Your task to perform on an android device: delete location history Image 0: 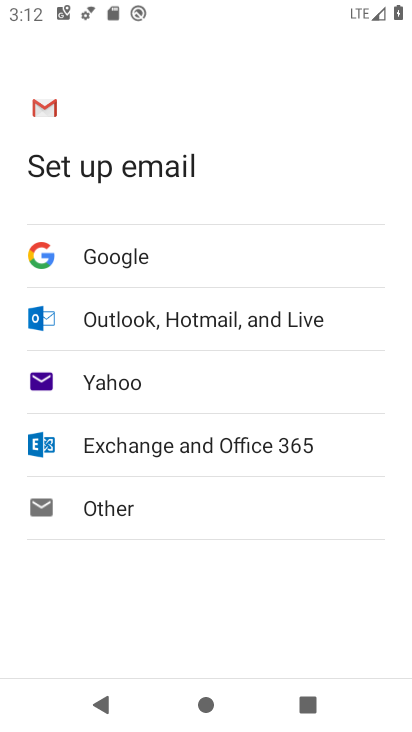
Step 0: press home button
Your task to perform on an android device: delete location history Image 1: 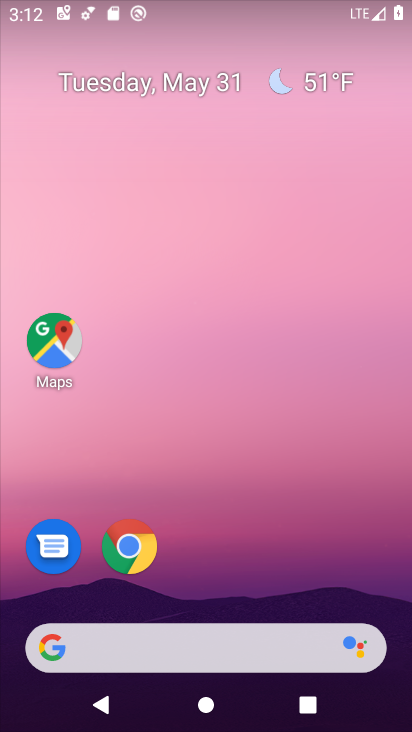
Step 1: drag from (207, 39) to (181, 8)
Your task to perform on an android device: delete location history Image 2: 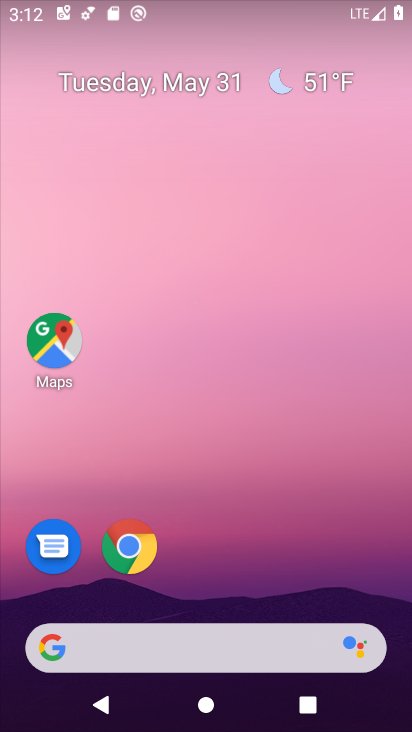
Step 2: drag from (250, 501) to (179, 17)
Your task to perform on an android device: delete location history Image 3: 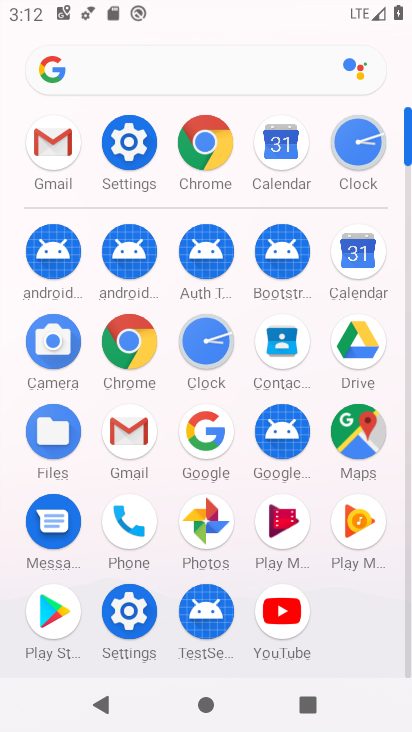
Step 3: click (116, 169)
Your task to perform on an android device: delete location history Image 4: 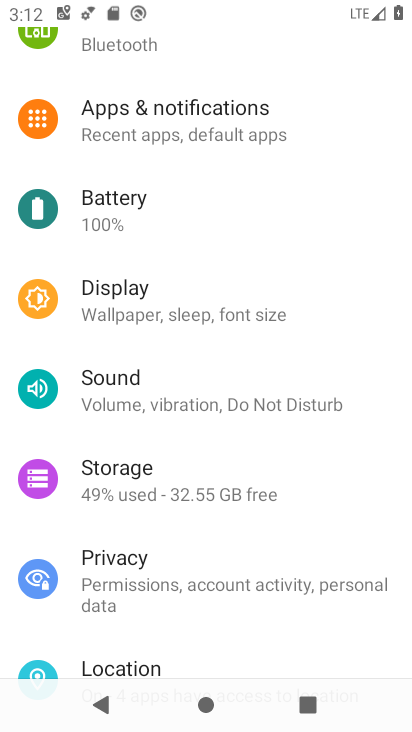
Step 4: drag from (230, 469) to (237, 83)
Your task to perform on an android device: delete location history Image 5: 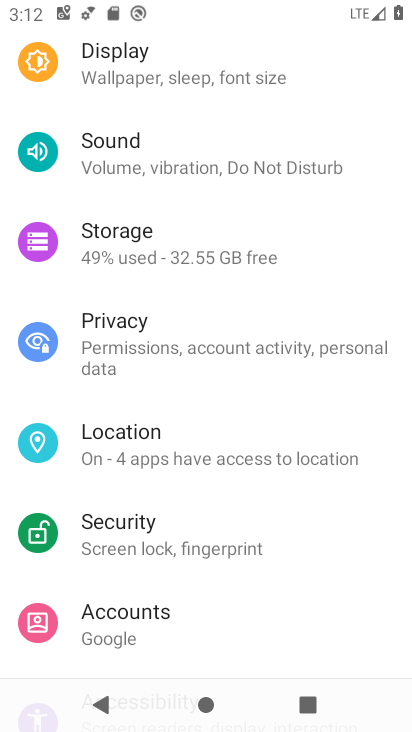
Step 5: click (187, 461)
Your task to perform on an android device: delete location history Image 6: 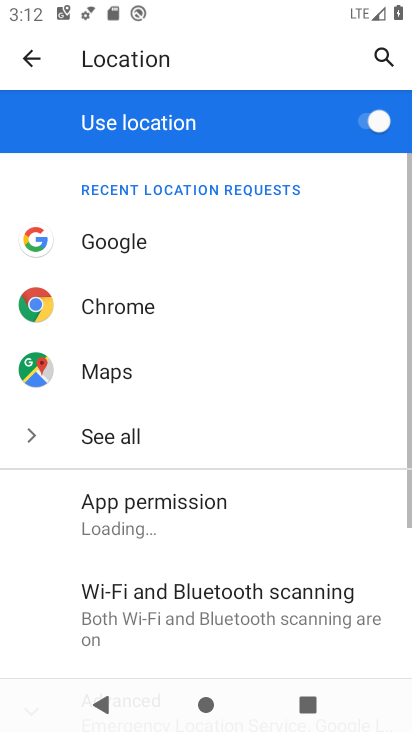
Step 6: drag from (263, 512) to (312, 224)
Your task to perform on an android device: delete location history Image 7: 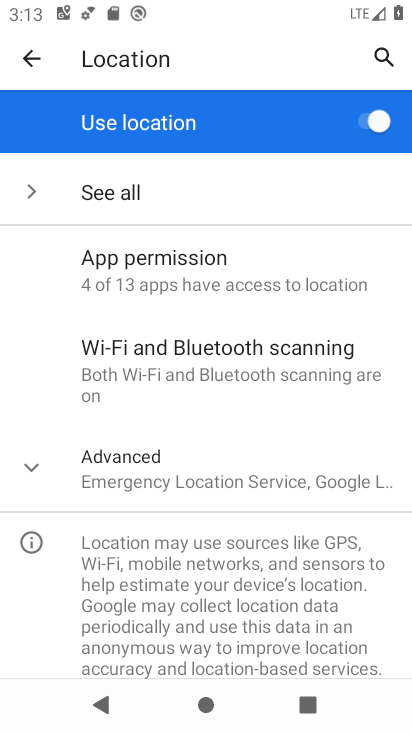
Step 7: click (193, 485)
Your task to perform on an android device: delete location history Image 8: 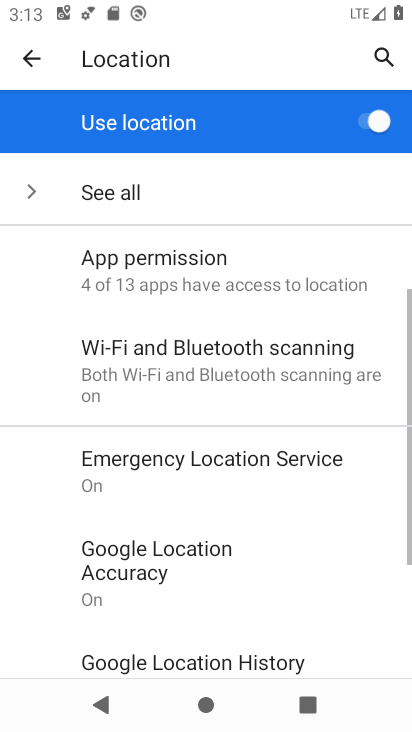
Step 8: drag from (248, 549) to (283, 146)
Your task to perform on an android device: delete location history Image 9: 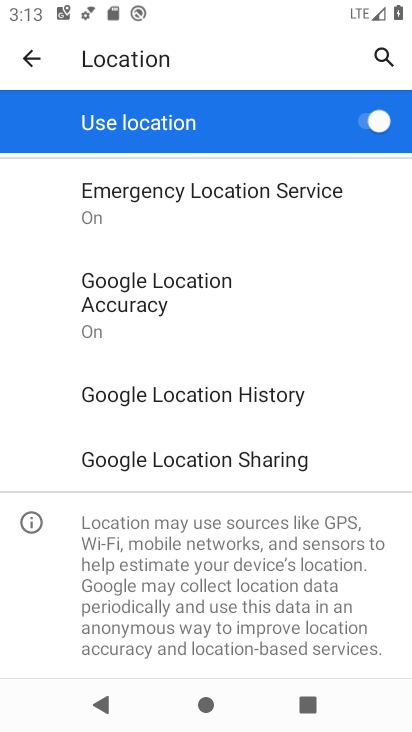
Step 9: click (278, 396)
Your task to perform on an android device: delete location history Image 10: 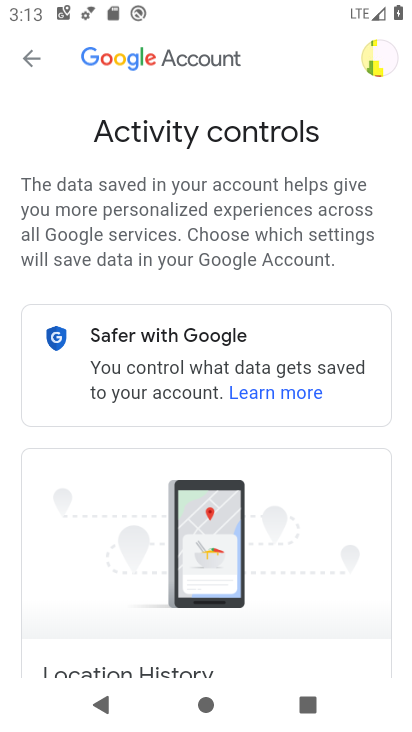
Step 10: drag from (307, 541) to (287, 19)
Your task to perform on an android device: delete location history Image 11: 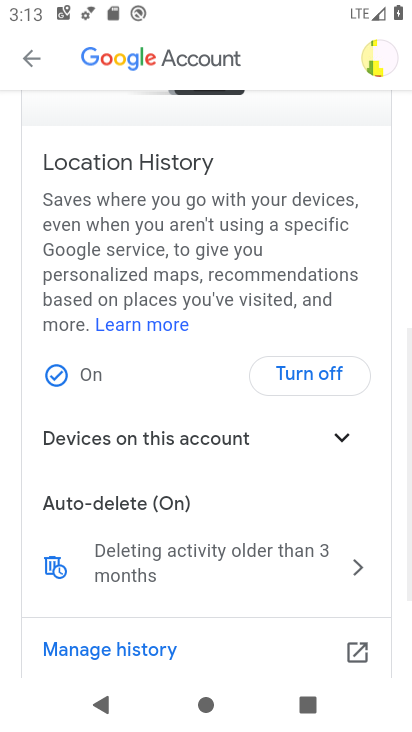
Step 11: drag from (298, 571) to (282, 187)
Your task to perform on an android device: delete location history Image 12: 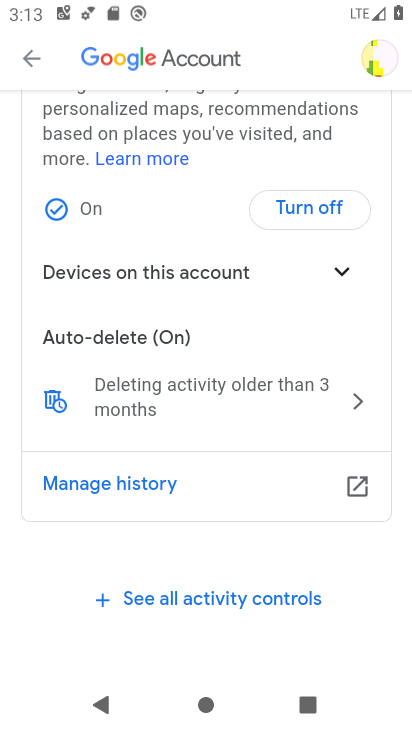
Step 12: click (313, 205)
Your task to perform on an android device: delete location history Image 13: 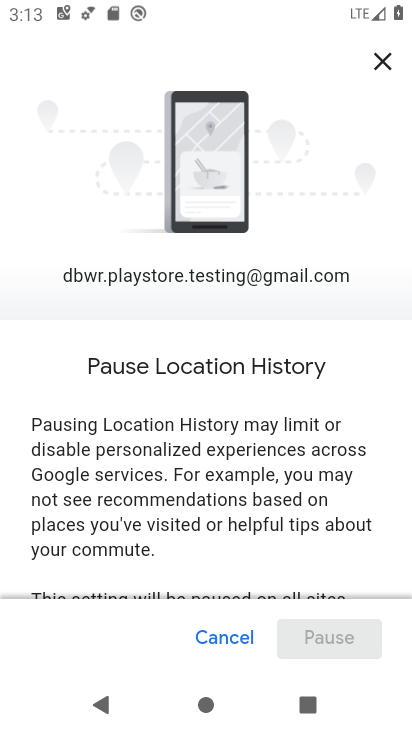
Step 13: drag from (229, 501) to (224, 45)
Your task to perform on an android device: delete location history Image 14: 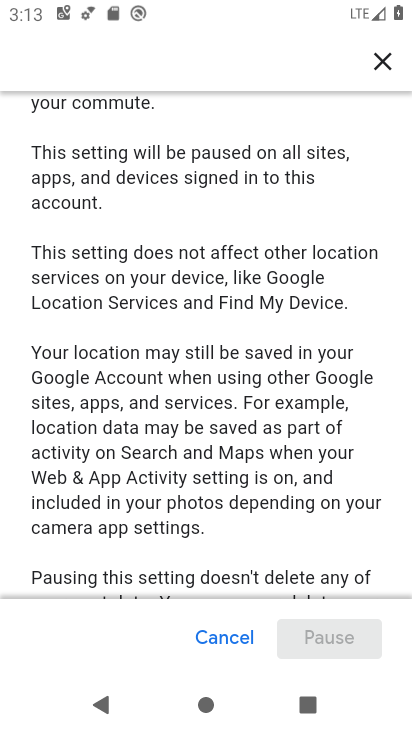
Step 14: click (239, 626)
Your task to perform on an android device: delete location history Image 15: 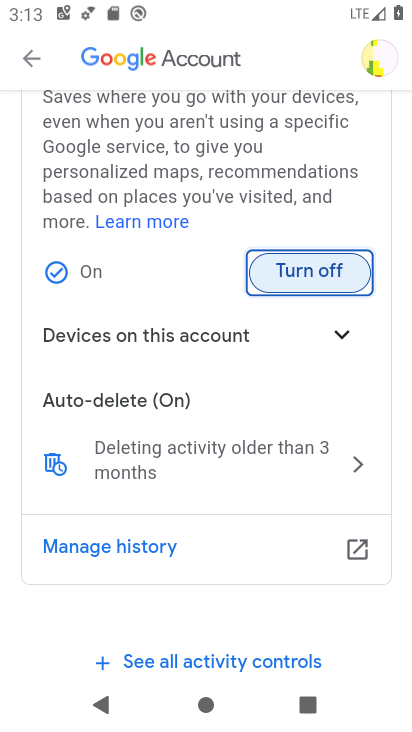
Step 15: drag from (237, 484) to (237, 198)
Your task to perform on an android device: delete location history Image 16: 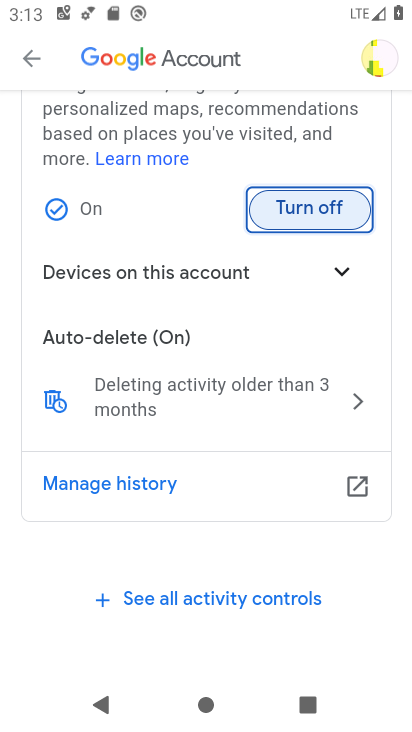
Step 16: click (42, 402)
Your task to perform on an android device: delete location history Image 17: 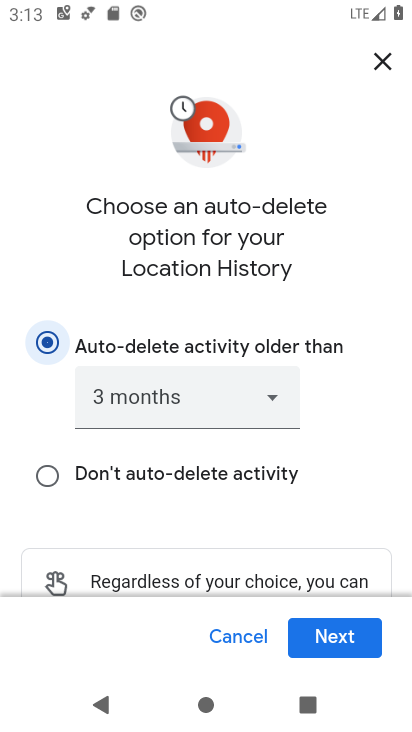
Step 17: click (44, 488)
Your task to perform on an android device: delete location history Image 18: 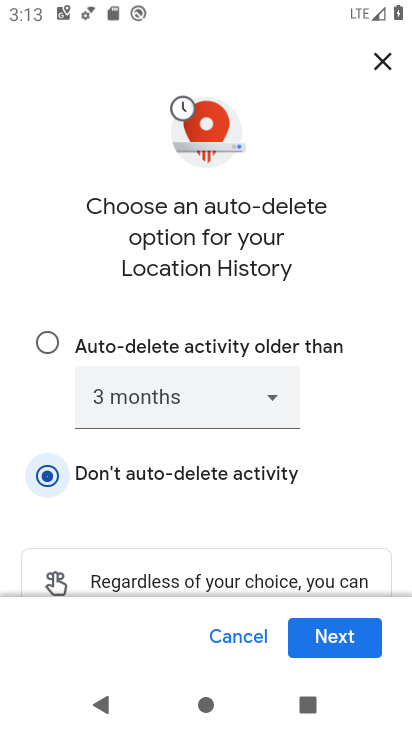
Step 18: click (347, 657)
Your task to perform on an android device: delete location history Image 19: 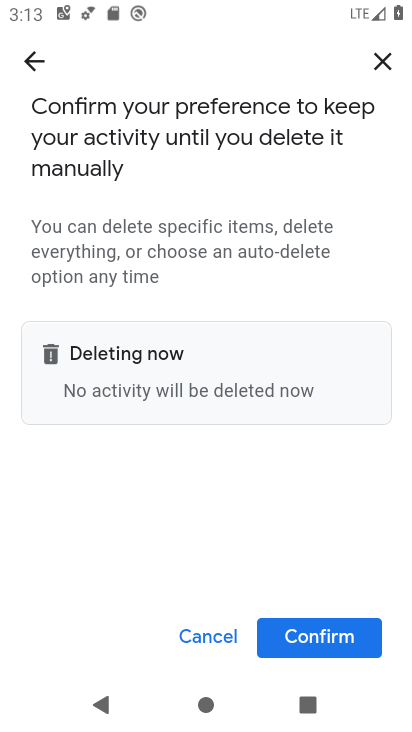
Step 19: click (341, 650)
Your task to perform on an android device: delete location history Image 20: 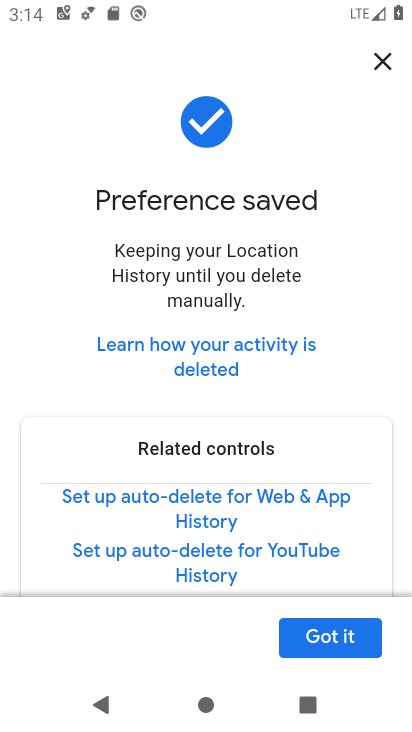
Step 20: click (315, 640)
Your task to perform on an android device: delete location history Image 21: 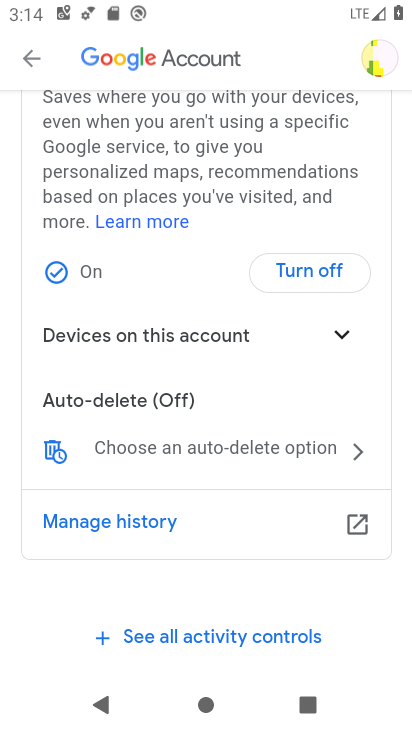
Step 21: task complete